Your task to perform on an android device: Go to Amazon Image 0: 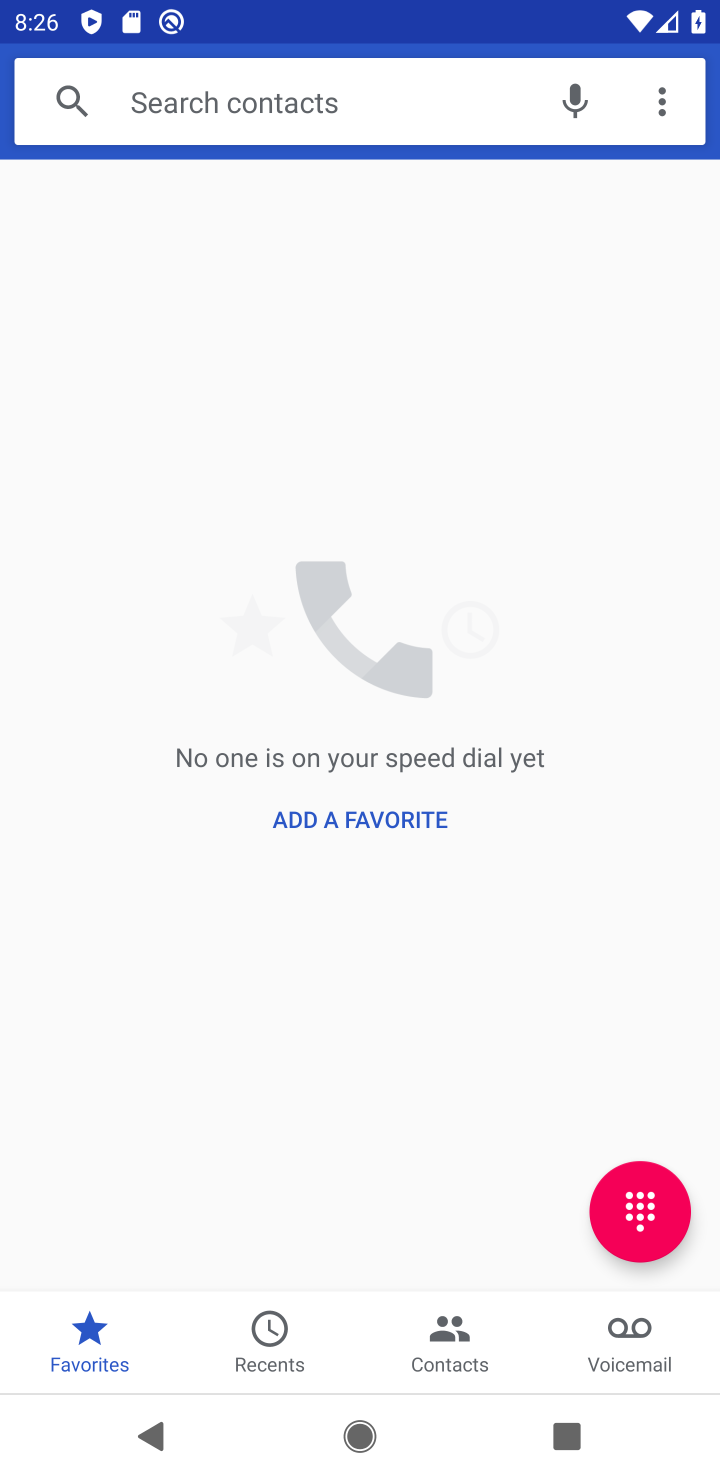
Step 0: press home button
Your task to perform on an android device: Go to Amazon Image 1: 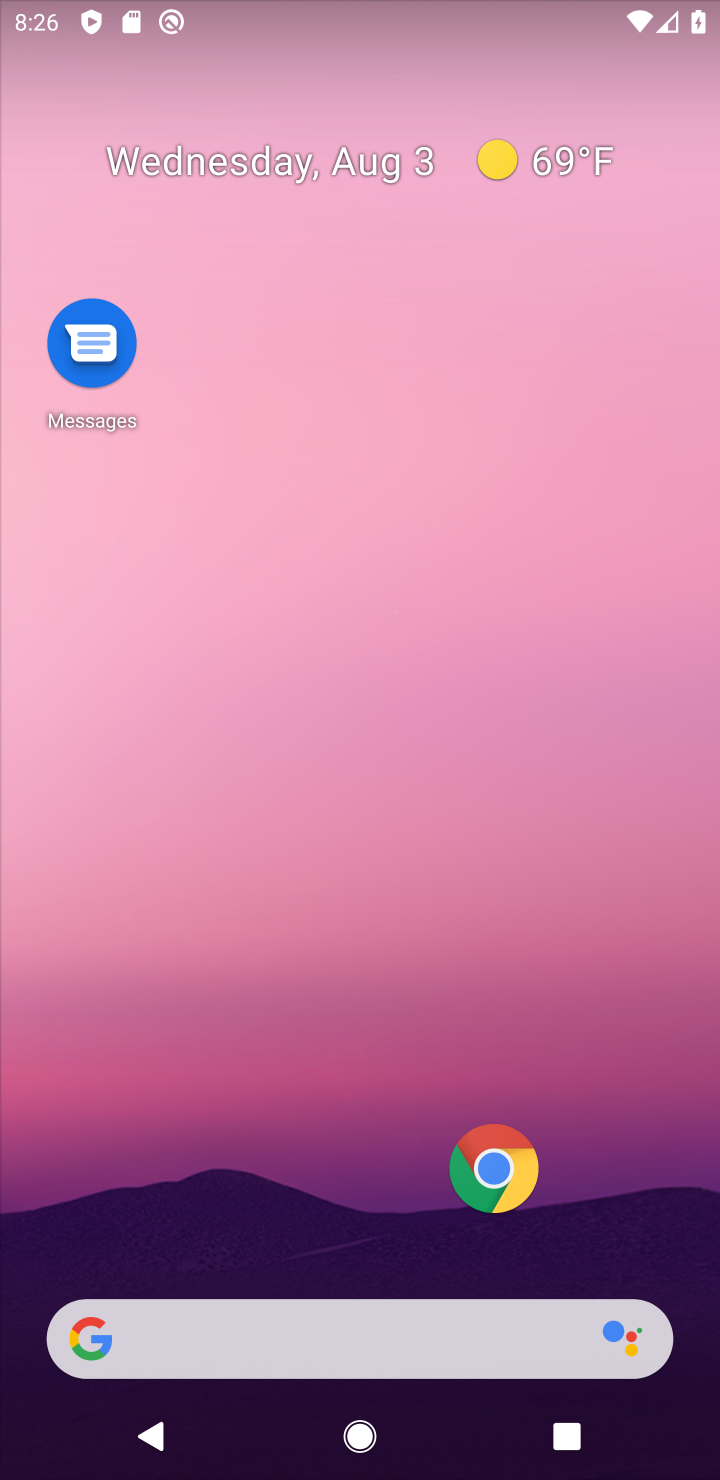
Step 1: click (496, 1175)
Your task to perform on an android device: Go to Amazon Image 2: 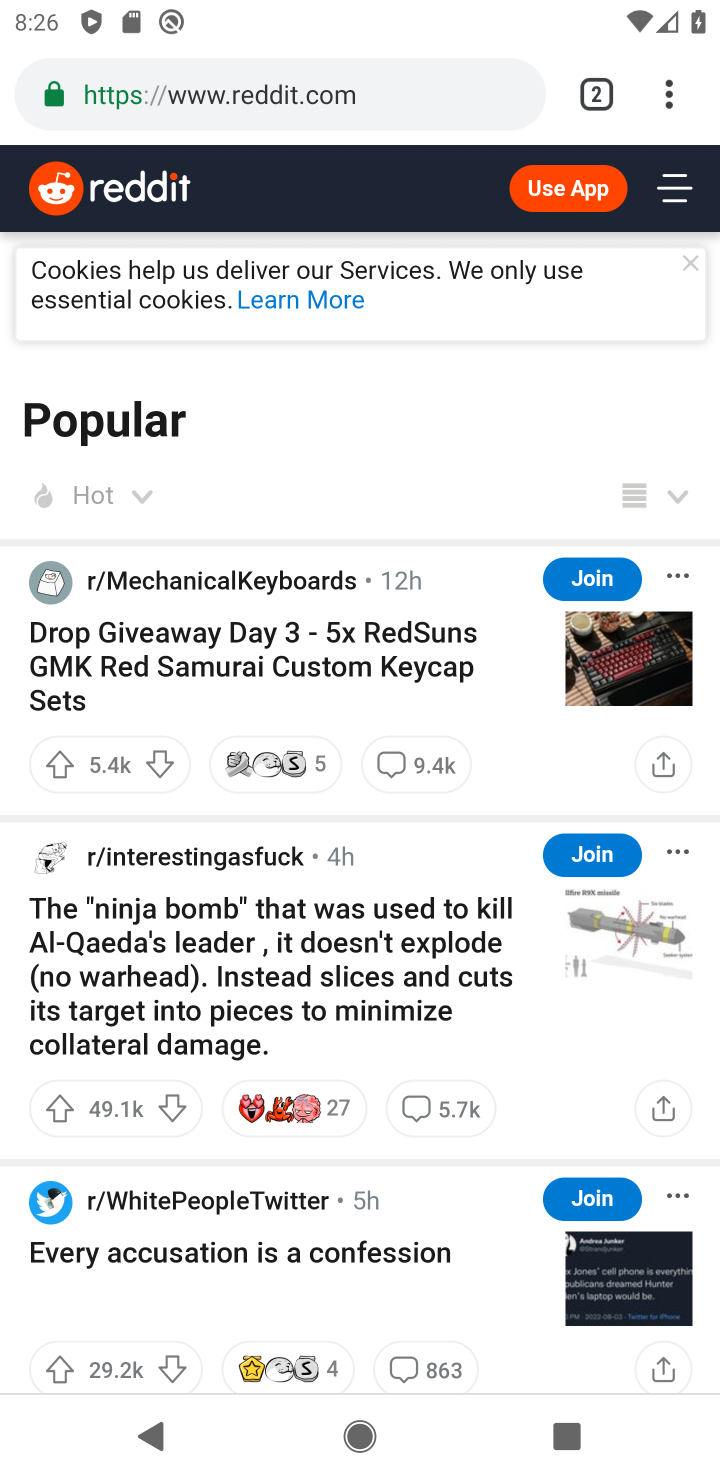
Step 2: click (583, 94)
Your task to perform on an android device: Go to Amazon Image 3: 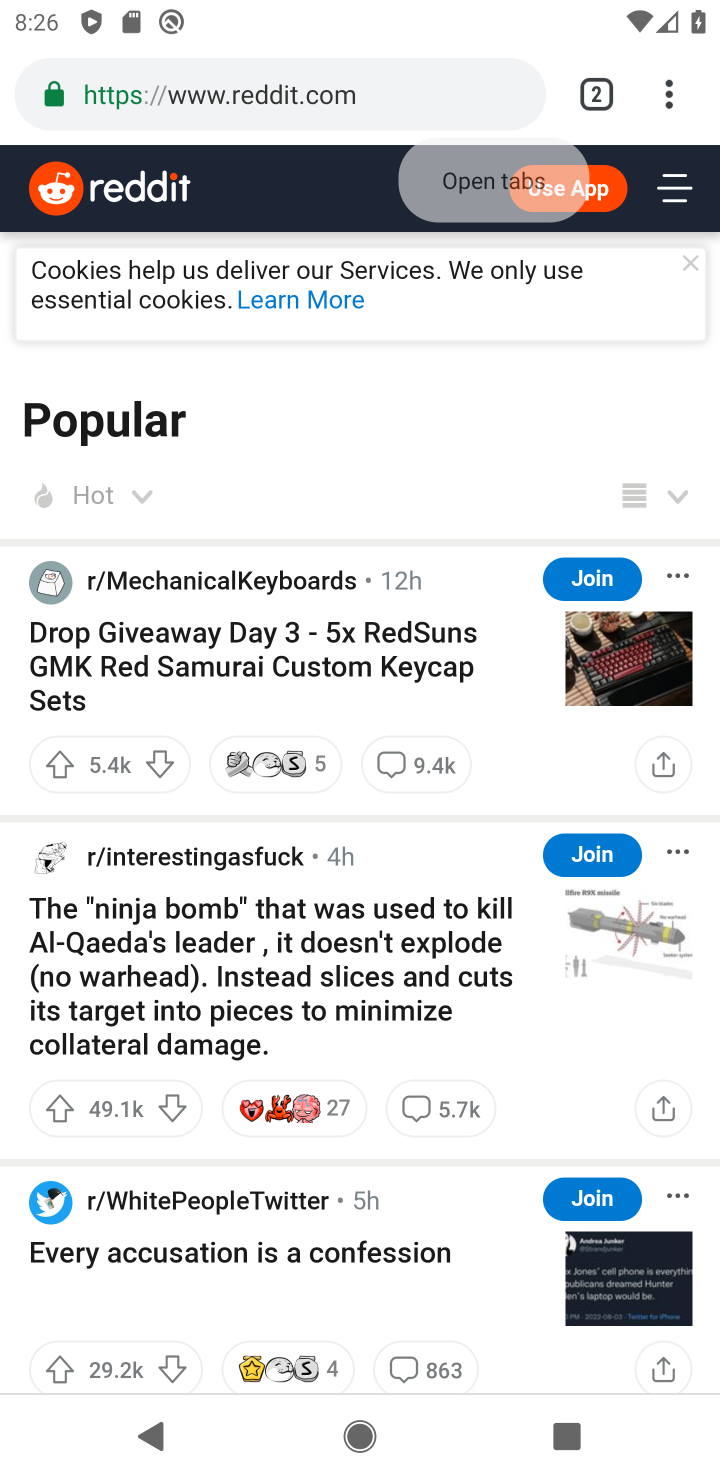
Step 3: click (600, 91)
Your task to perform on an android device: Go to Amazon Image 4: 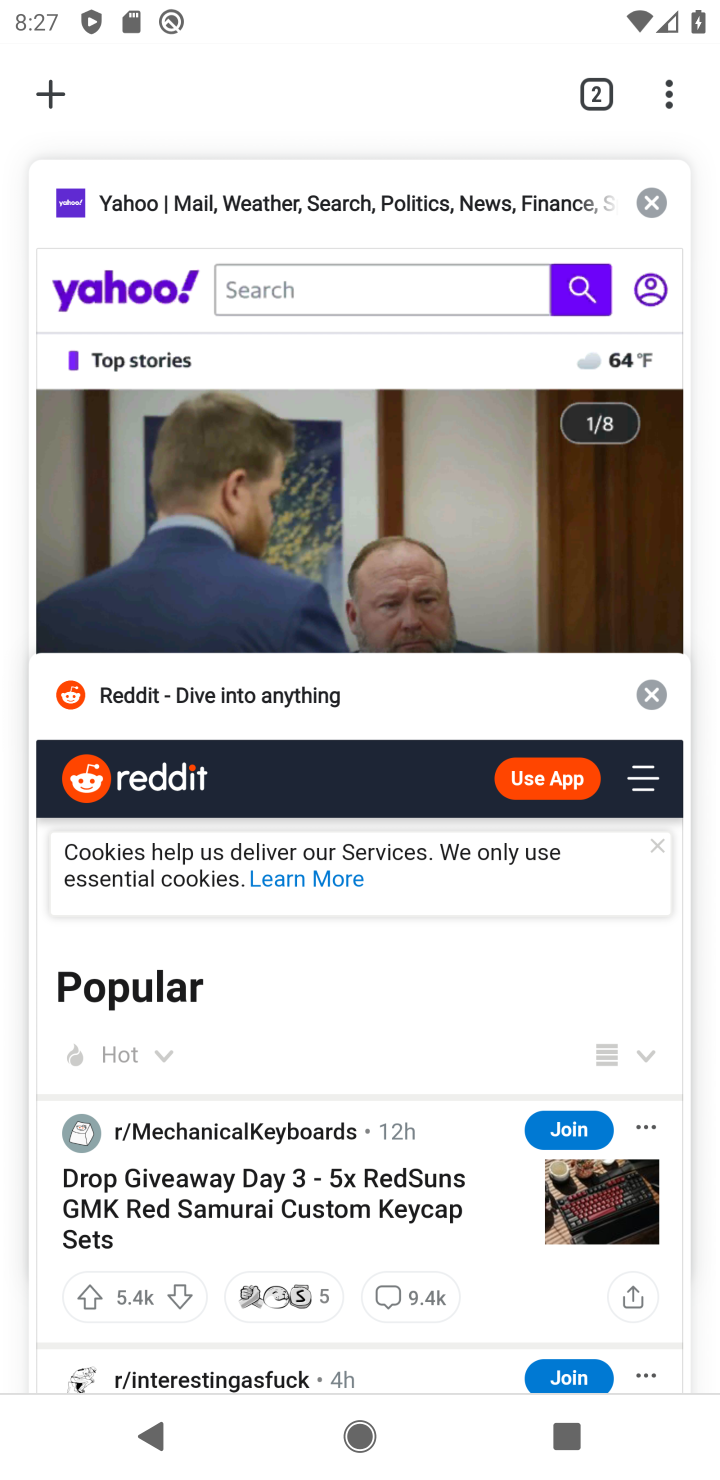
Step 4: click (46, 83)
Your task to perform on an android device: Go to Amazon Image 5: 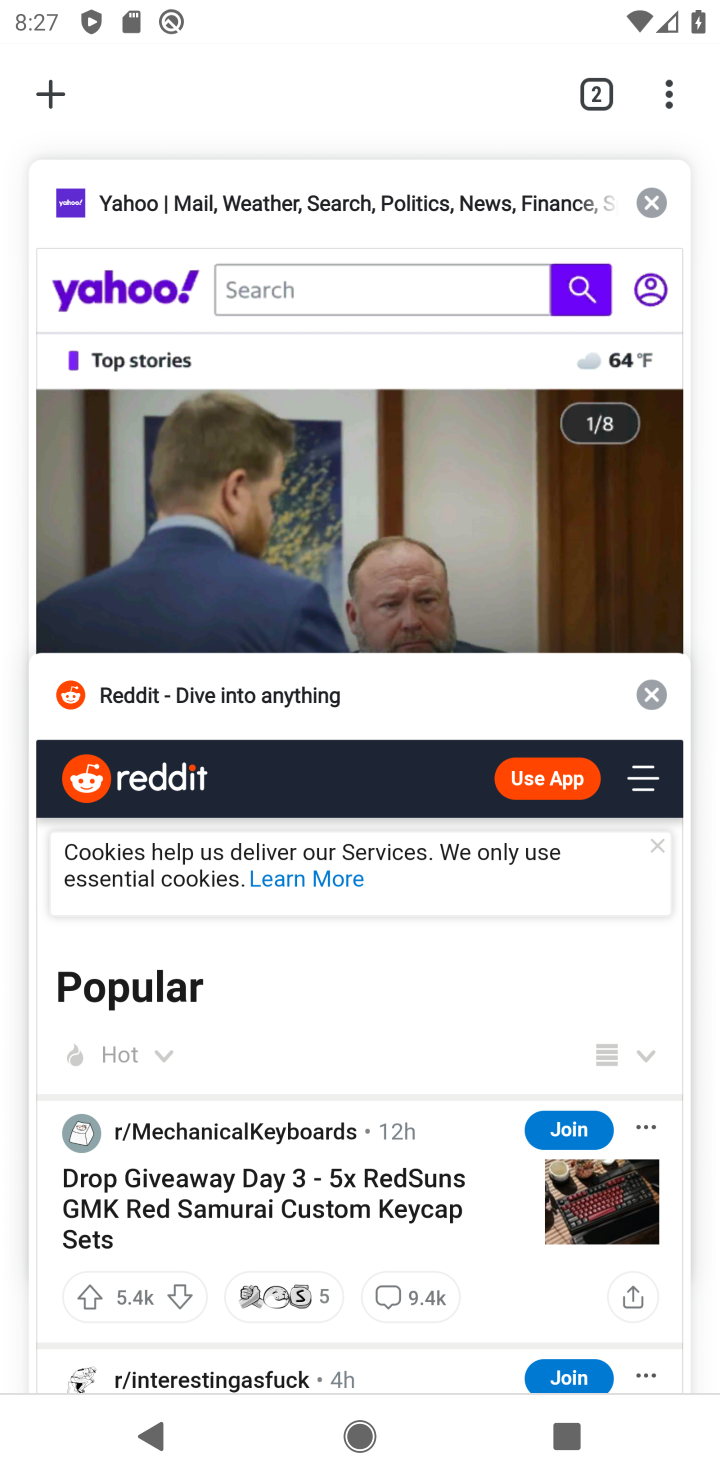
Step 5: click (51, 85)
Your task to perform on an android device: Go to Amazon Image 6: 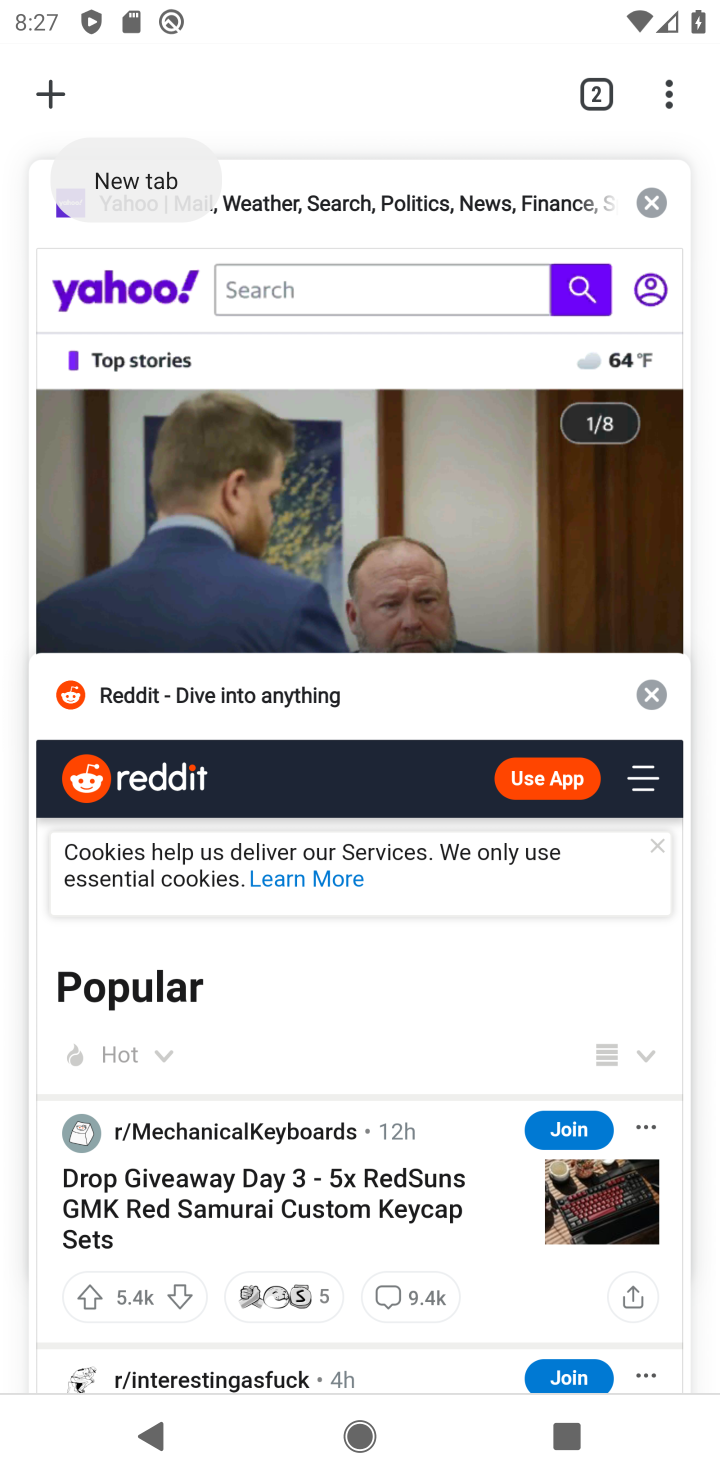
Step 6: click (53, 83)
Your task to perform on an android device: Go to Amazon Image 7: 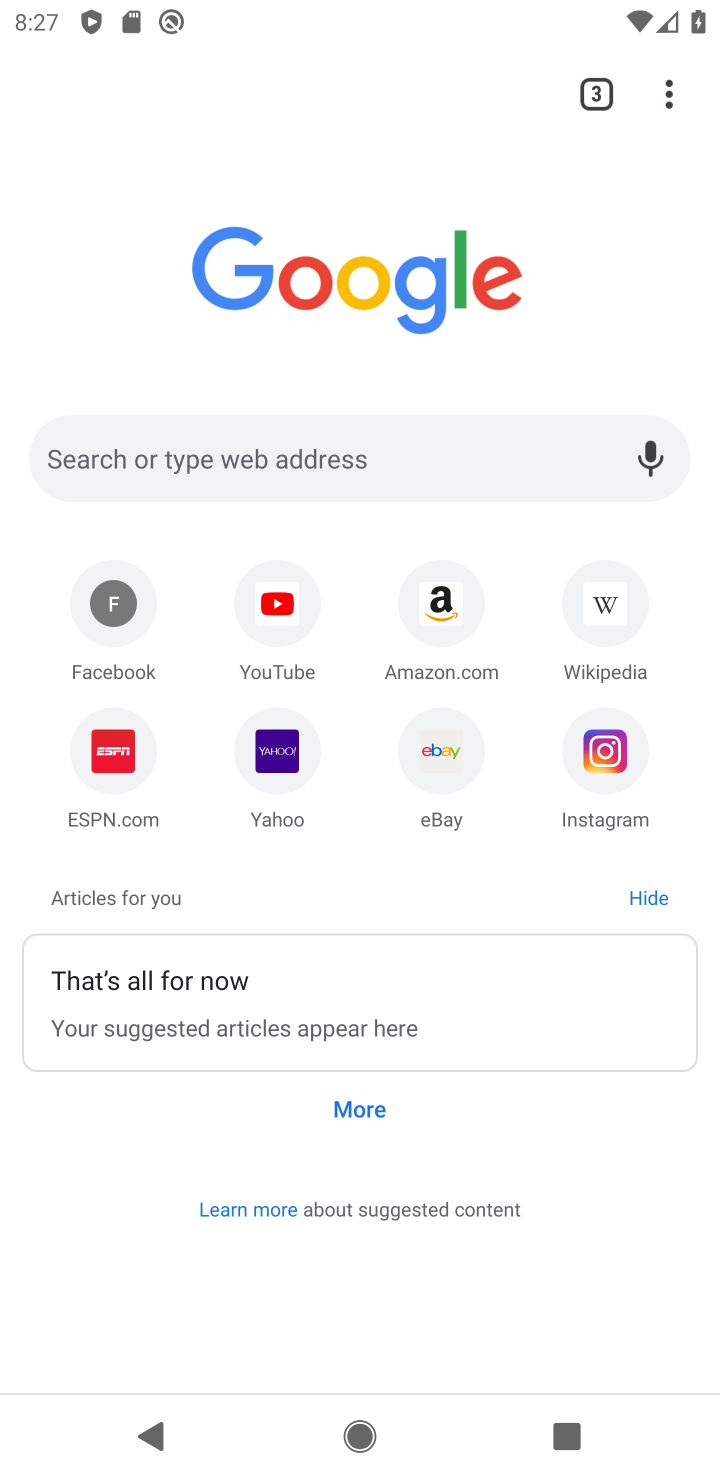
Step 7: click (437, 571)
Your task to perform on an android device: Go to Amazon Image 8: 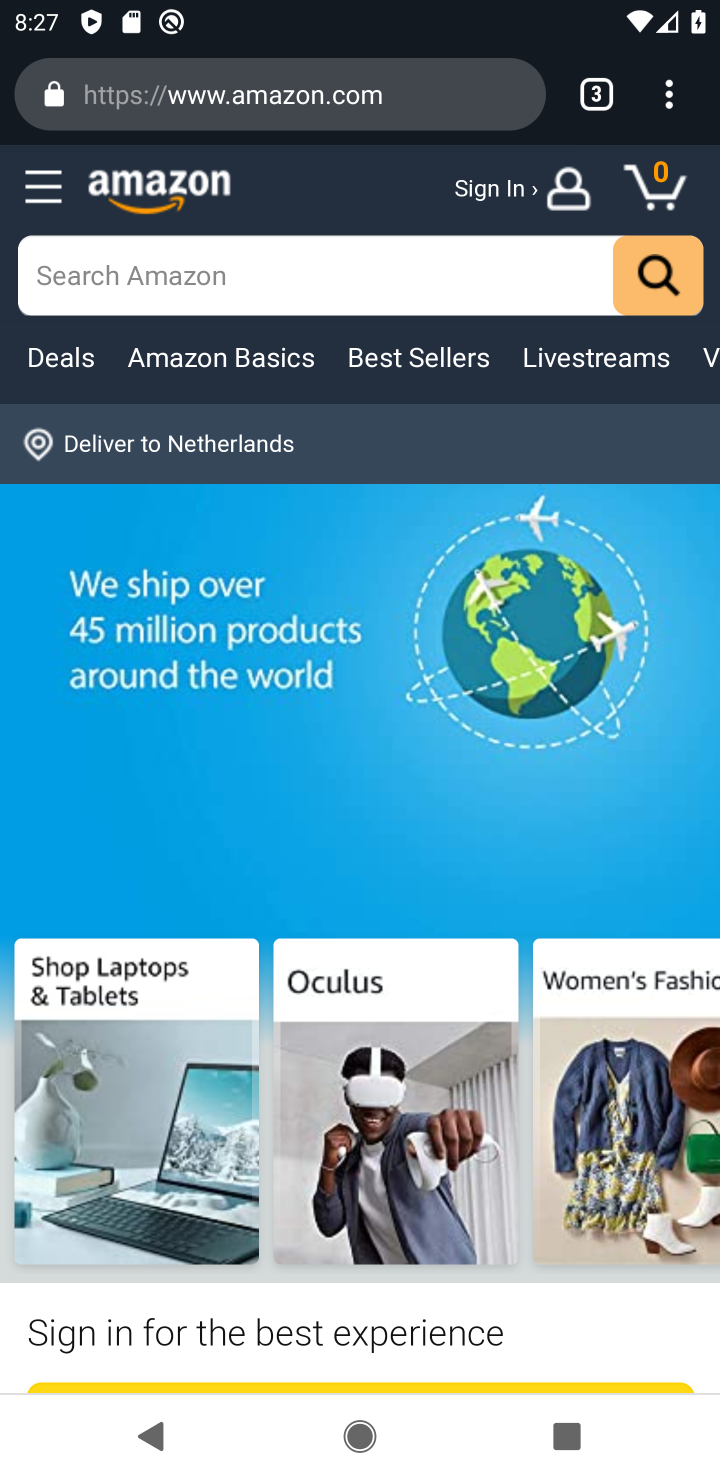
Step 8: task complete